Your task to perform on an android device: Go to location settings Image 0: 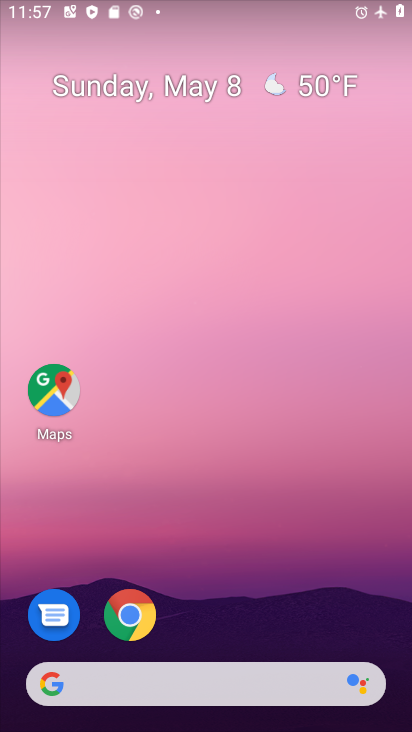
Step 0: drag from (303, 713) to (288, 210)
Your task to perform on an android device: Go to location settings Image 1: 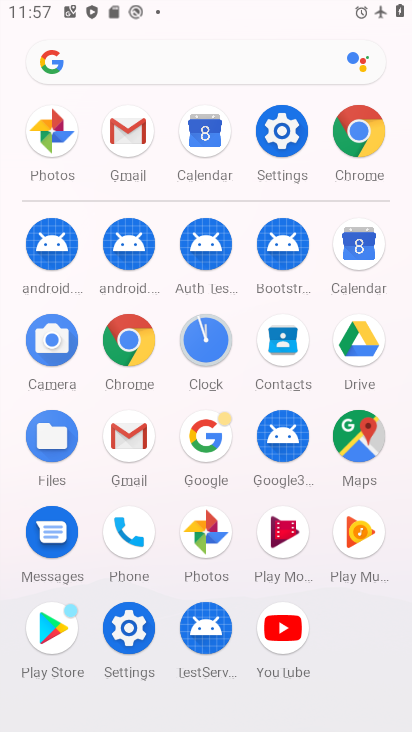
Step 1: click (271, 144)
Your task to perform on an android device: Go to location settings Image 2: 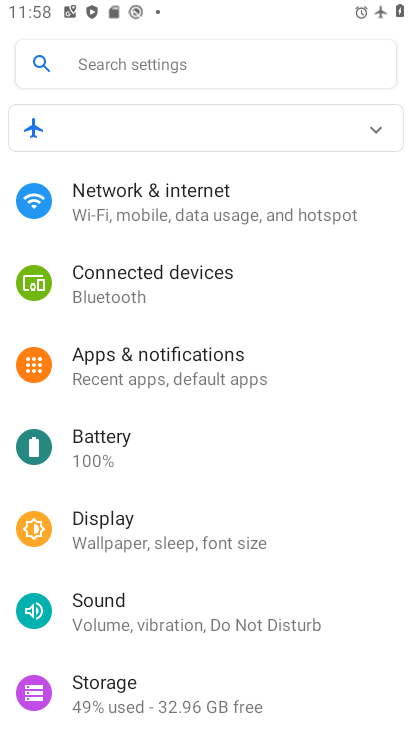
Step 2: click (217, 75)
Your task to perform on an android device: Go to location settings Image 3: 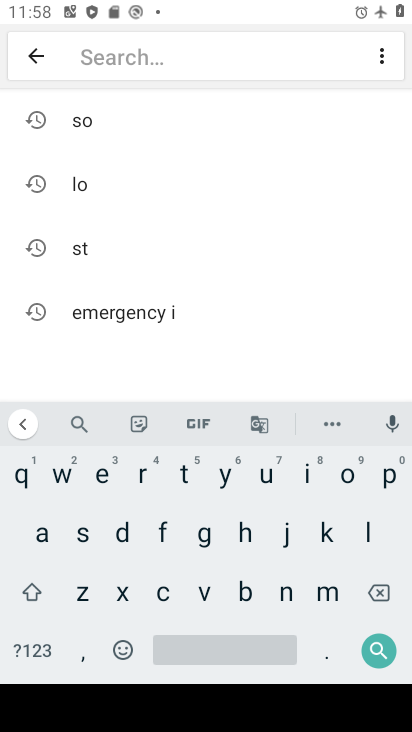
Step 3: click (370, 535)
Your task to perform on an android device: Go to location settings Image 4: 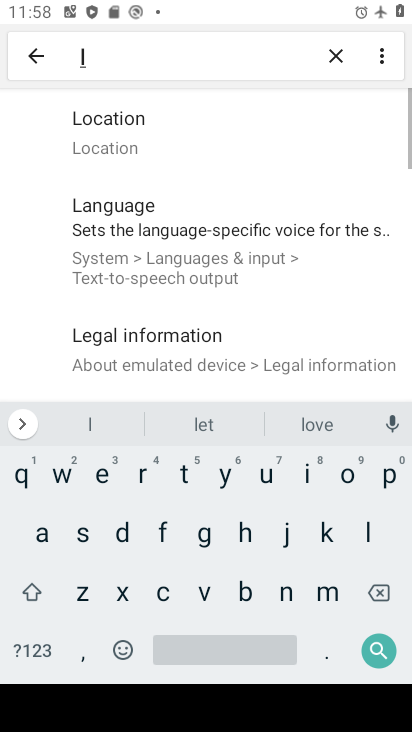
Step 4: click (352, 471)
Your task to perform on an android device: Go to location settings Image 5: 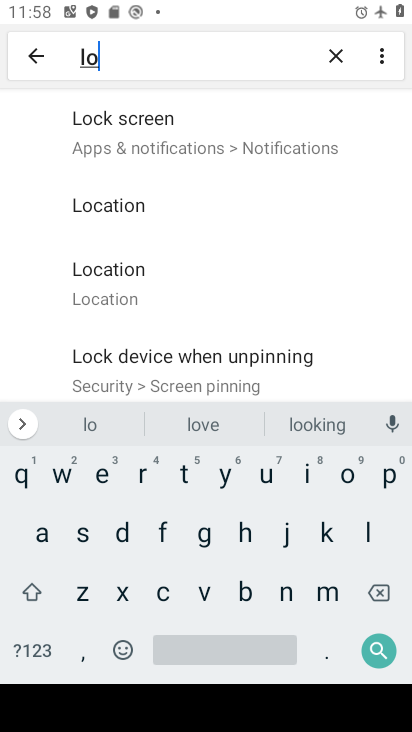
Step 5: click (123, 278)
Your task to perform on an android device: Go to location settings Image 6: 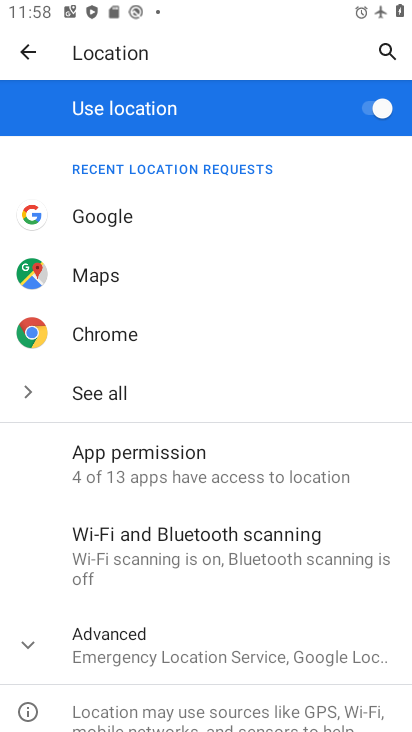
Step 6: task complete